Your task to perform on an android device: Search for flights from Tokyo to Mexico city Image 0: 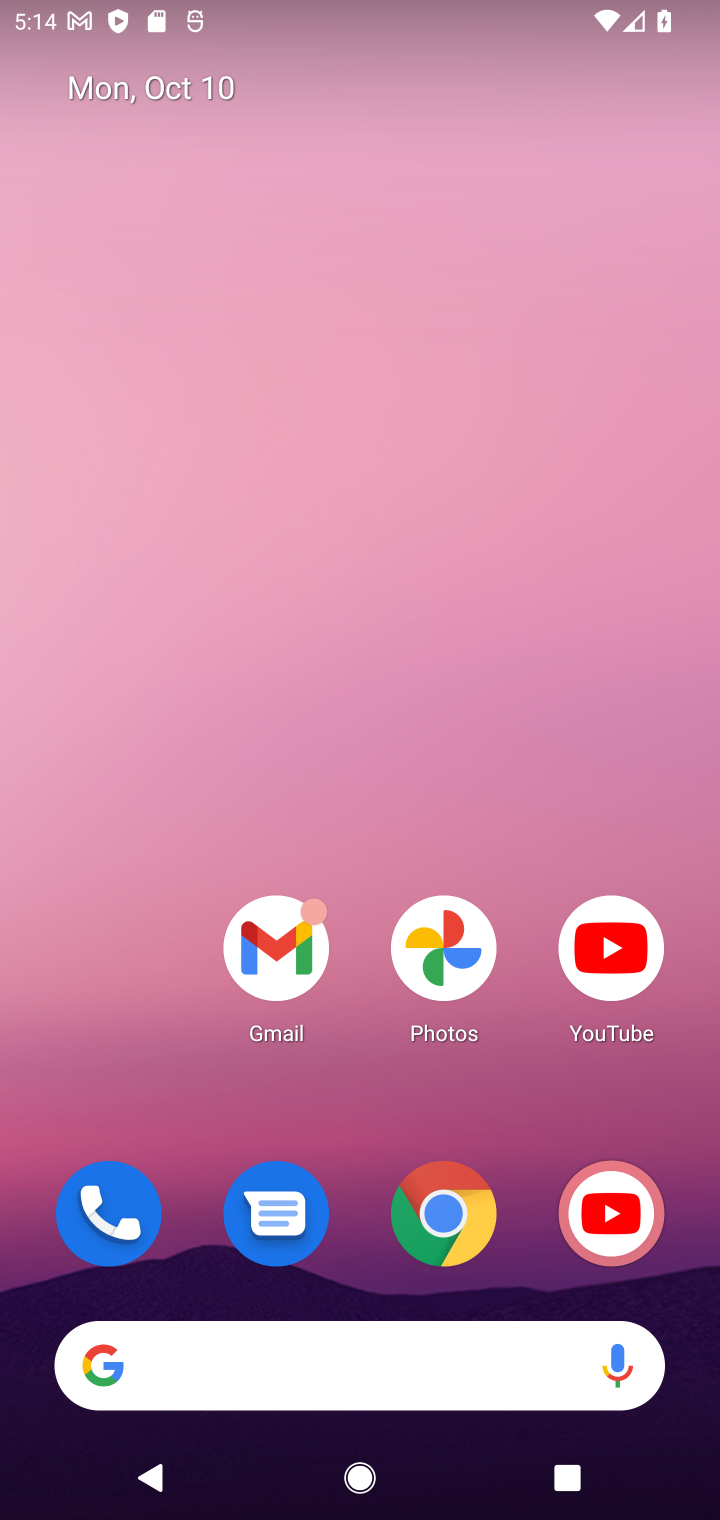
Step 0: drag from (392, 1007) to (506, 229)
Your task to perform on an android device: Search for flights from Tokyo to Mexico city Image 1: 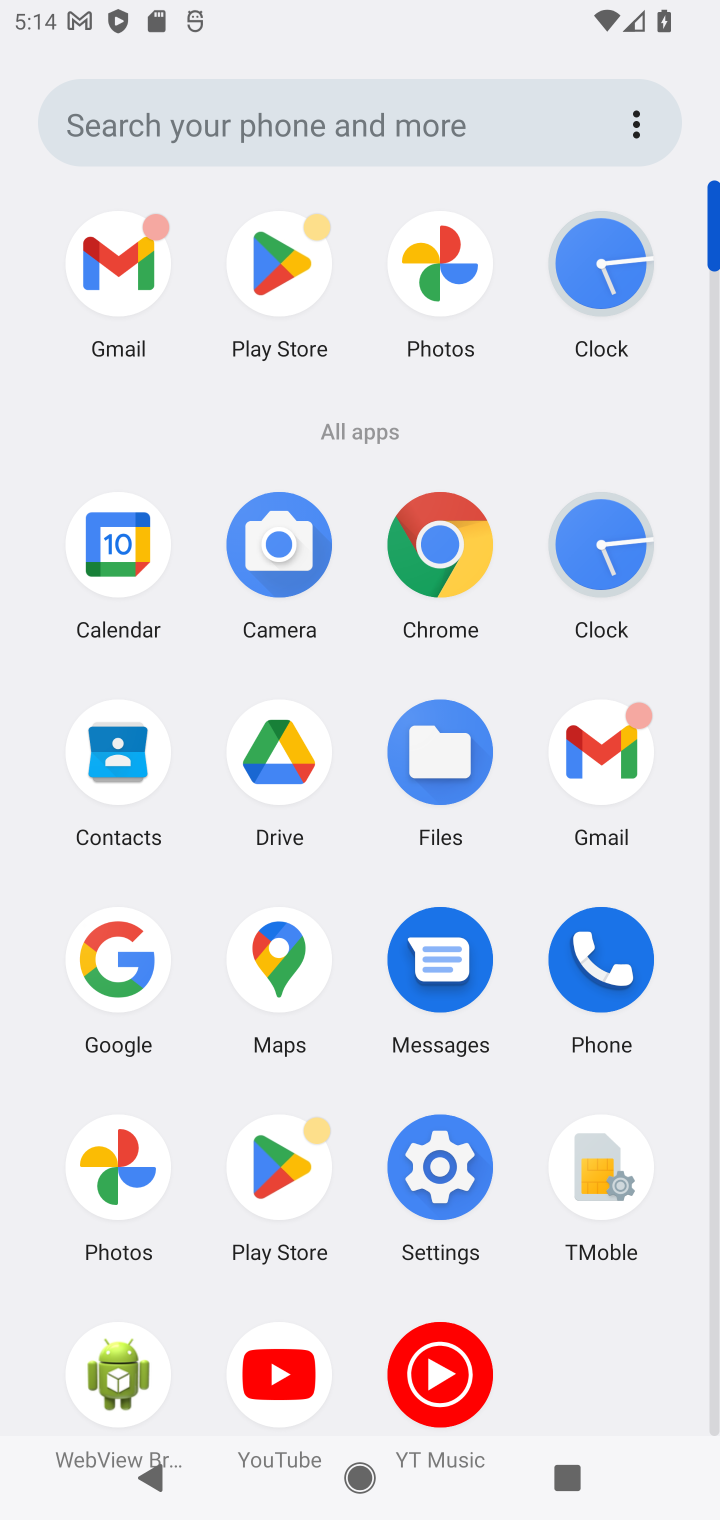
Step 1: click (111, 922)
Your task to perform on an android device: Search for flights from Tokyo to Mexico city Image 2: 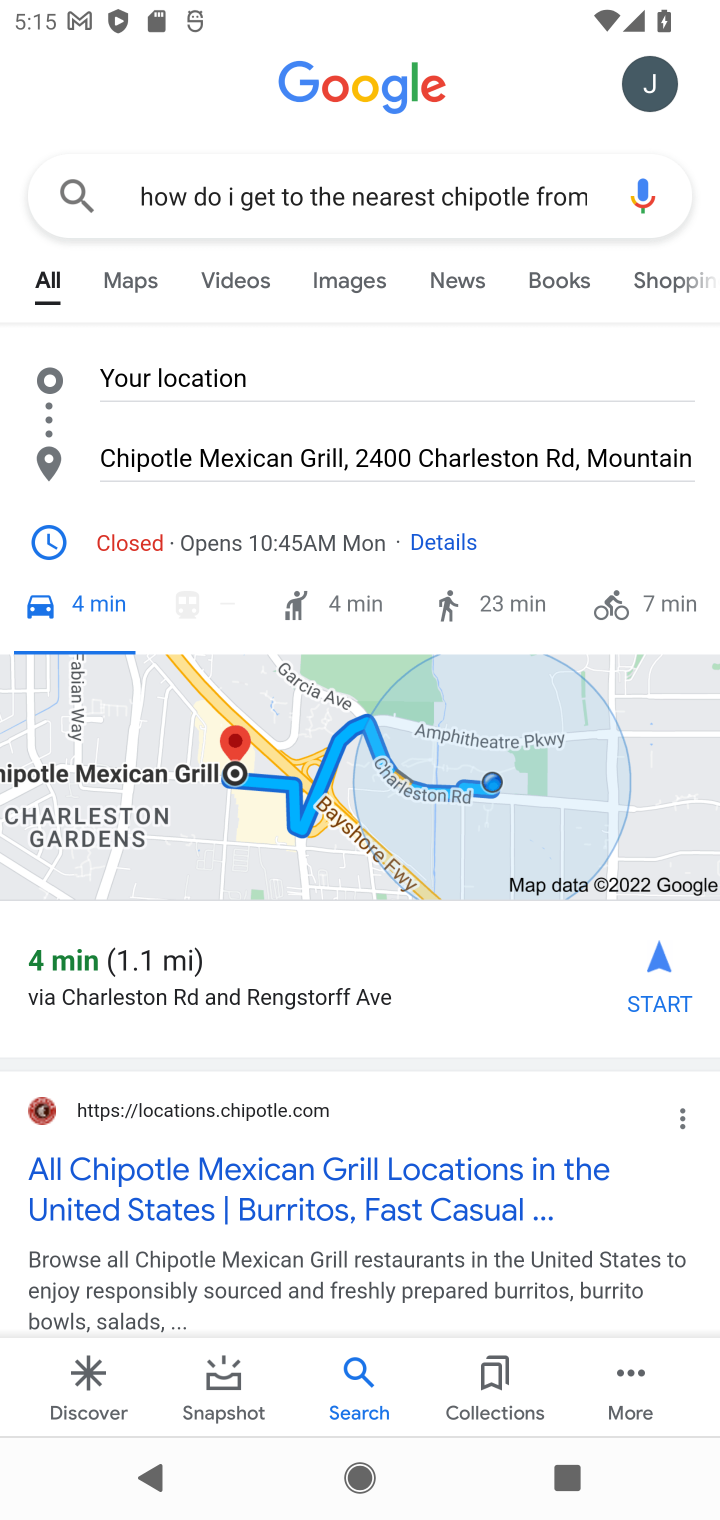
Step 2: click (589, 203)
Your task to perform on an android device: Search for flights from Tokyo to Mexico city Image 3: 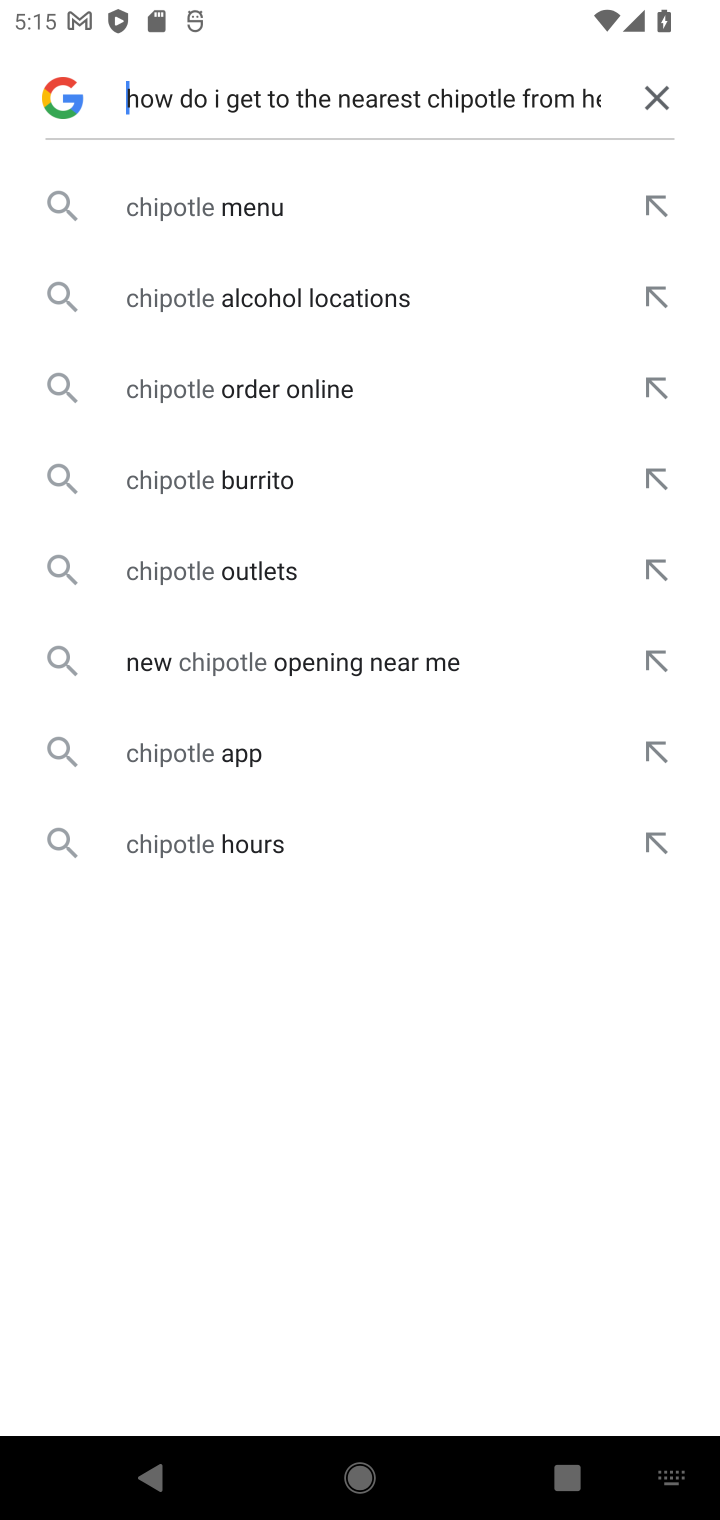
Step 3: click (649, 105)
Your task to perform on an android device: Search for flights from Tokyo to Mexico city Image 4: 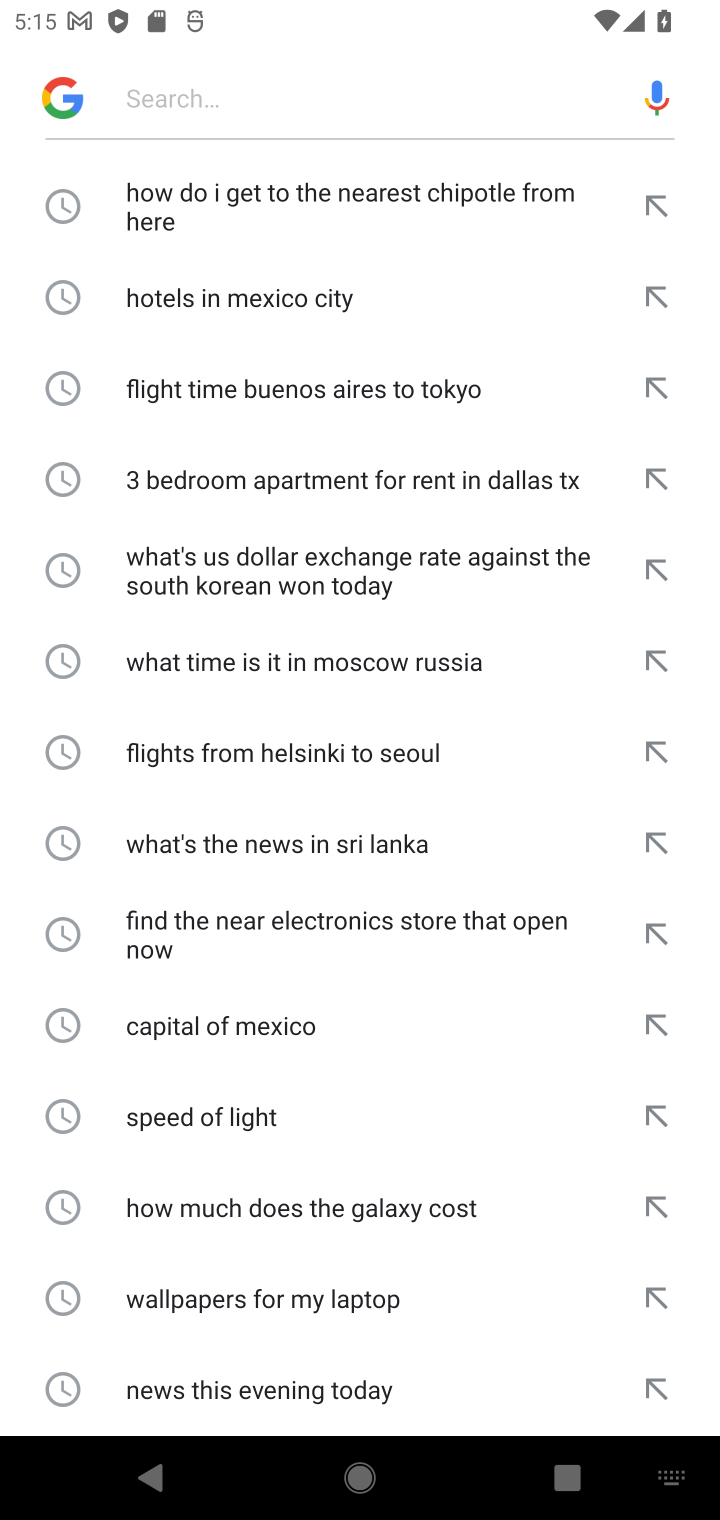
Step 4: click (237, 103)
Your task to perform on an android device: Search for flights from Tokyo to Mexico city Image 5: 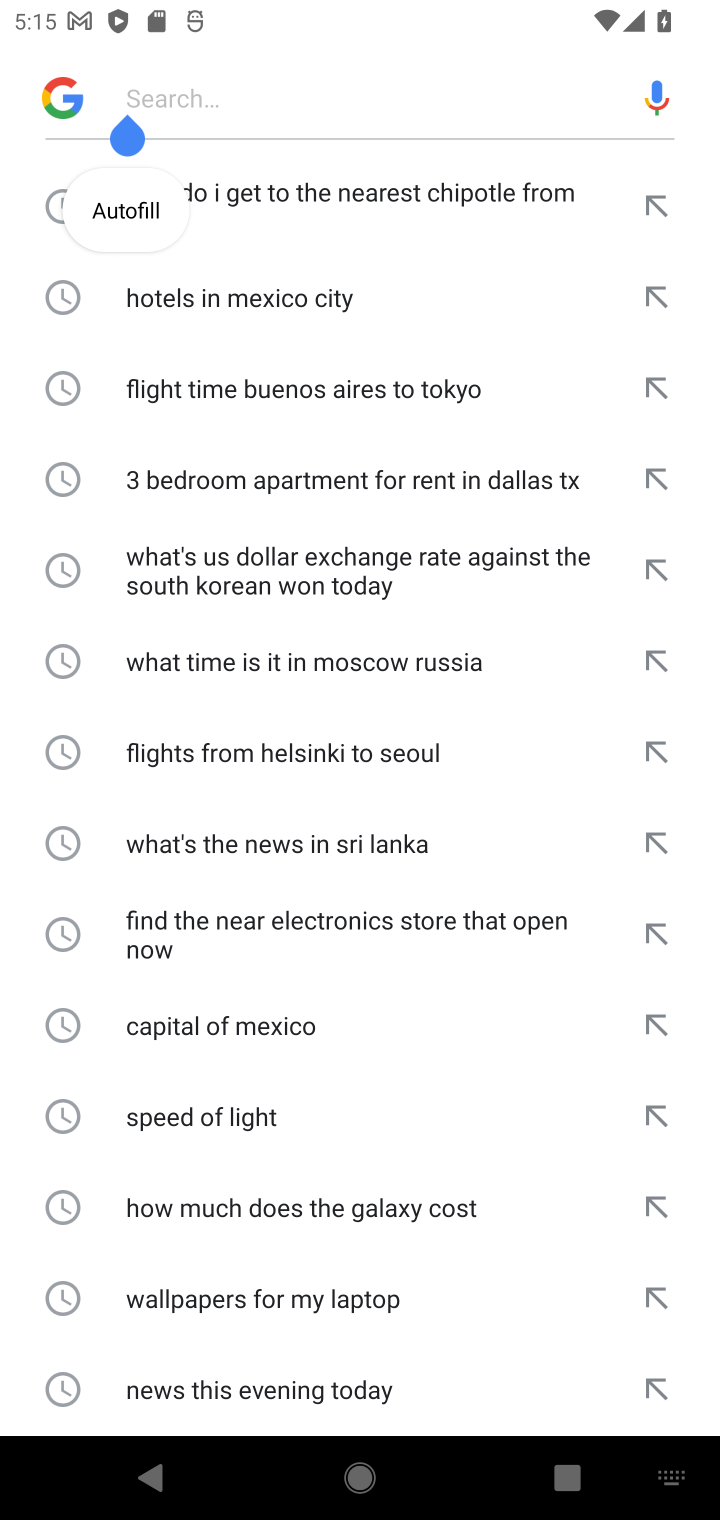
Step 5: type "flights from Tokyo to Mexico city"
Your task to perform on an android device: Search for flights from Tokyo to Mexico city Image 6: 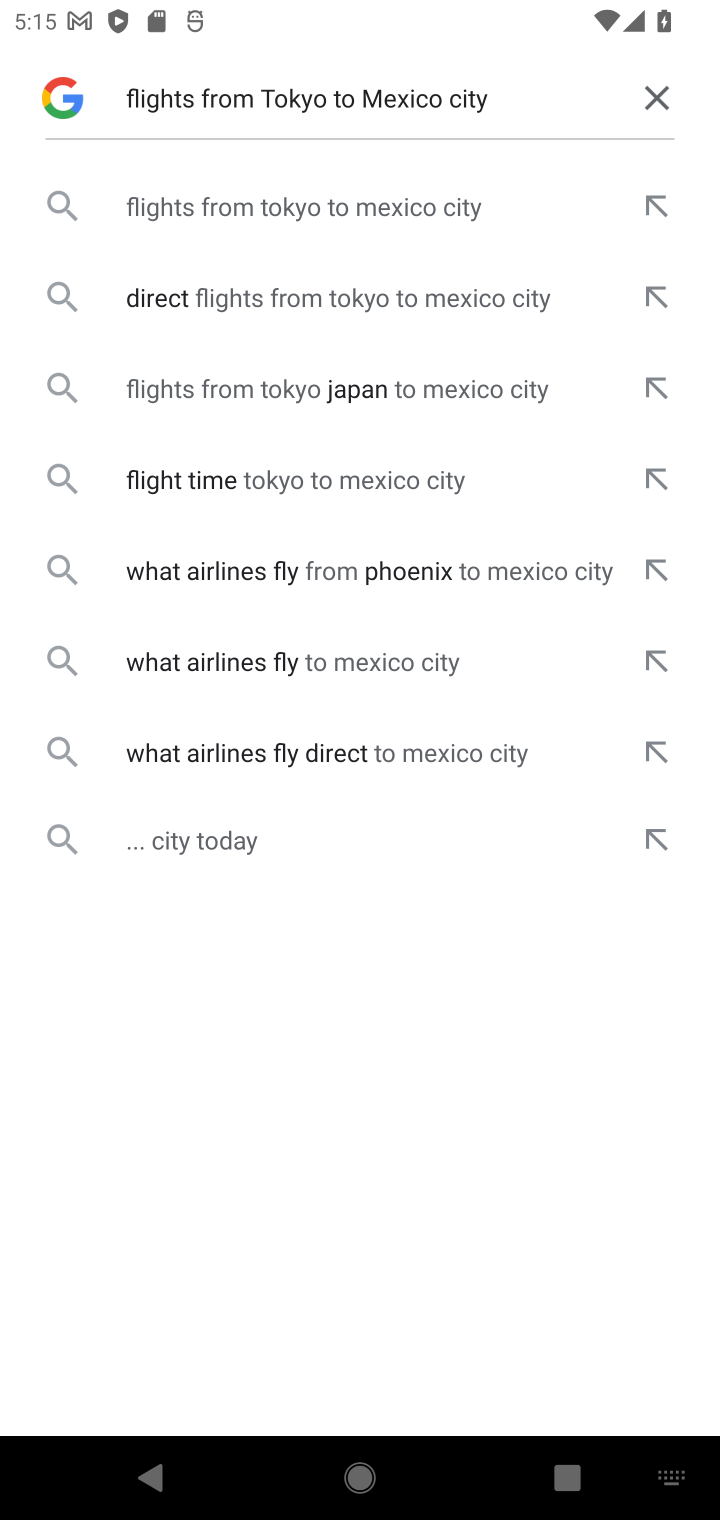
Step 6: click (264, 188)
Your task to perform on an android device: Search for flights from Tokyo to Mexico city Image 7: 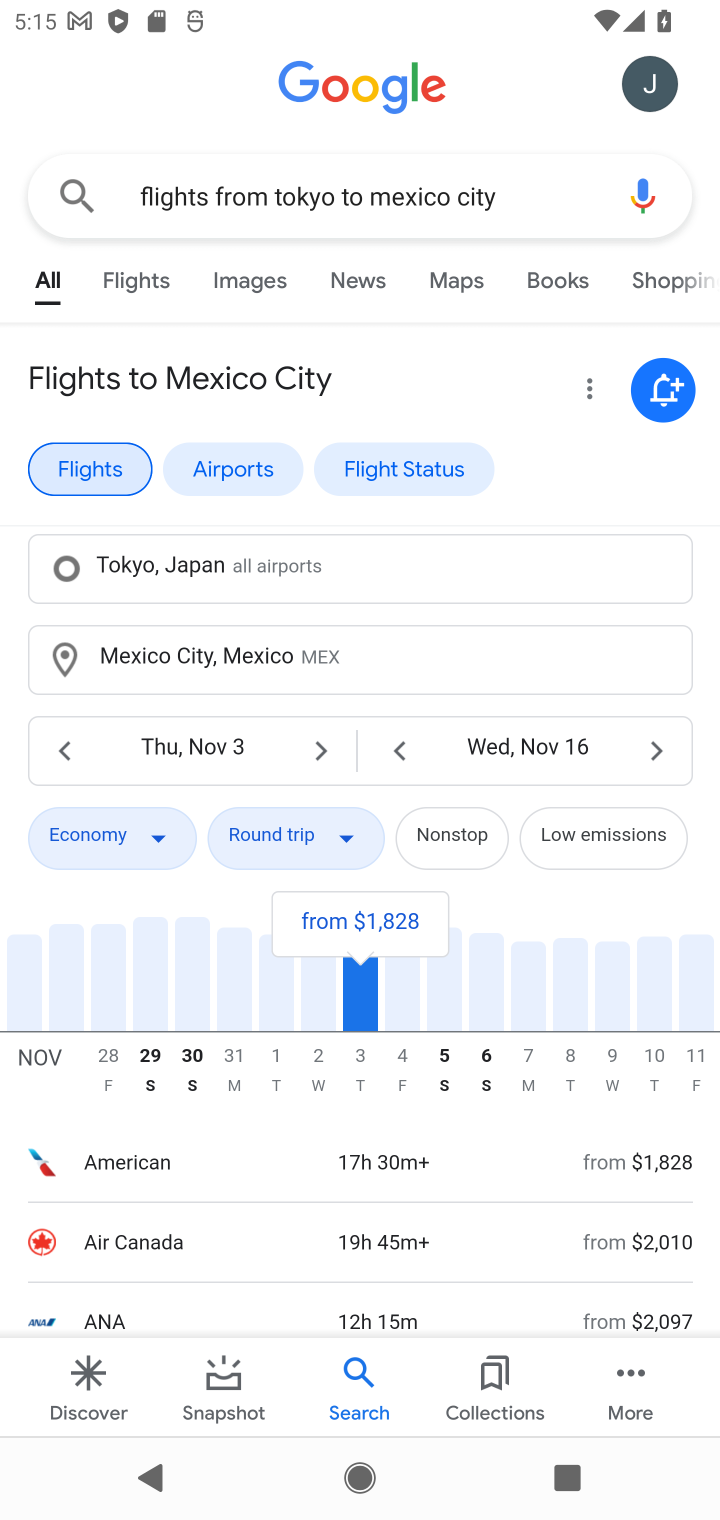
Step 7: task complete